Your task to perform on an android device: Go to eBay Image 0: 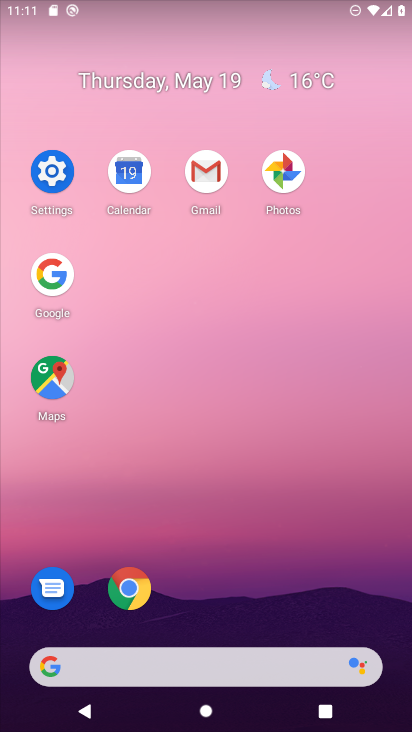
Step 0: click (145, 582)
Your task to perform on an android device: Go to eBay Image 1: 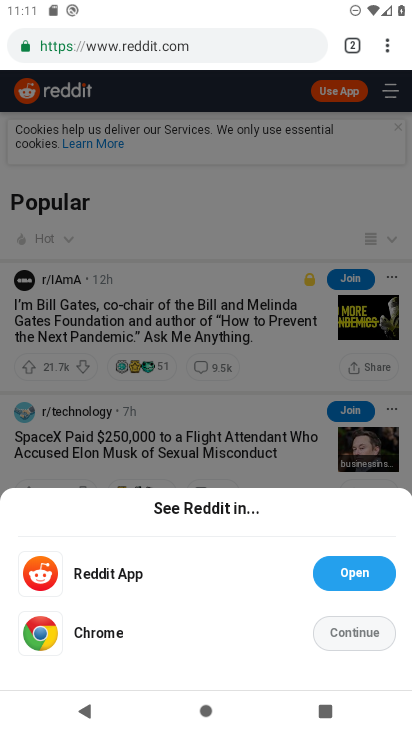
Step 1: click (349, 37)
Your task to perform on an android device: Go to eBay Image 2: 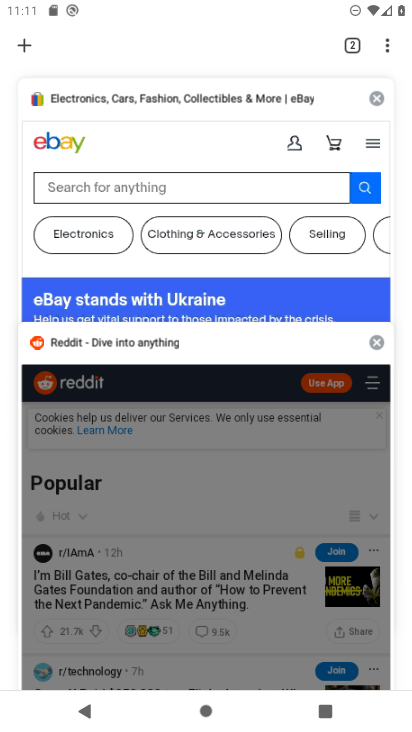
Step 2: click (78, 139)
Your task to perform on an android device: Go to eBay Image 3: 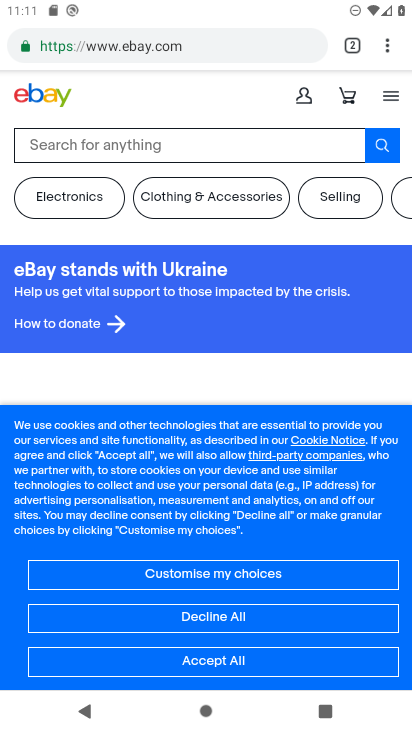
Step 3: task complete